Your task to perform on an android device: check google app version Image 0: 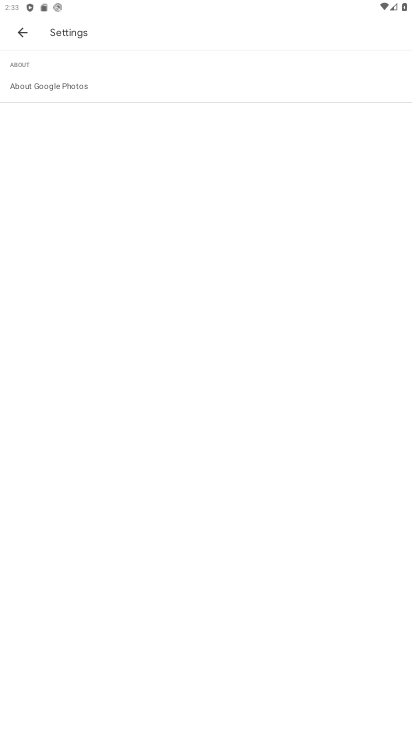
Step 0: press home button
Your task to perform on an android device: check google app version Image 1: 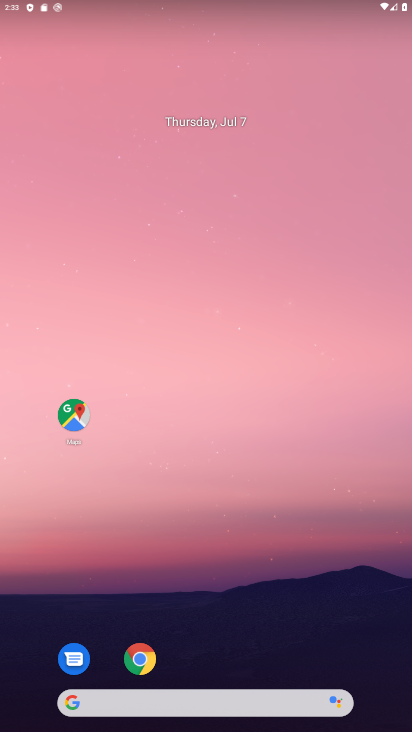
Step 1: click (138, 661)
Your task to perform on an android device: check google app version Image 2: 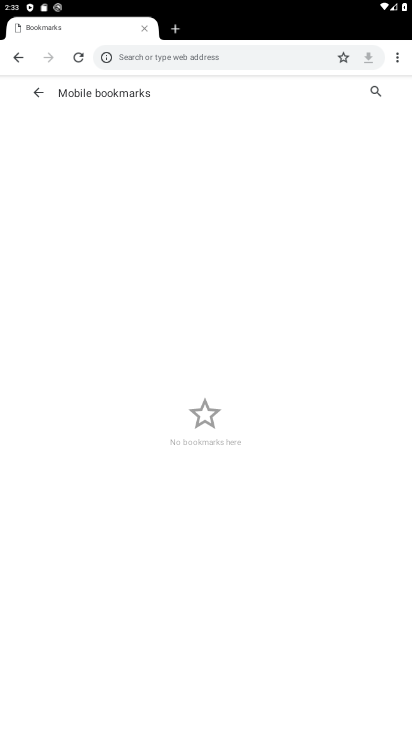
Step 2: click (399, 60)
Your task to perform on an android device: check google app version Image 3: 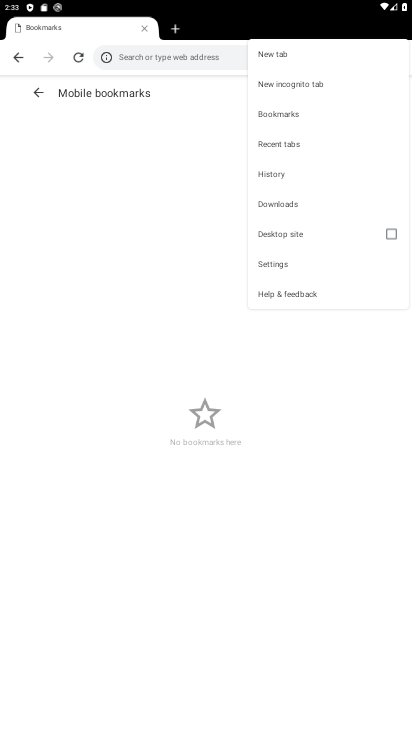
Step 3: click (313, 290)
Your task to perform on an android device: check google app version Image 4: 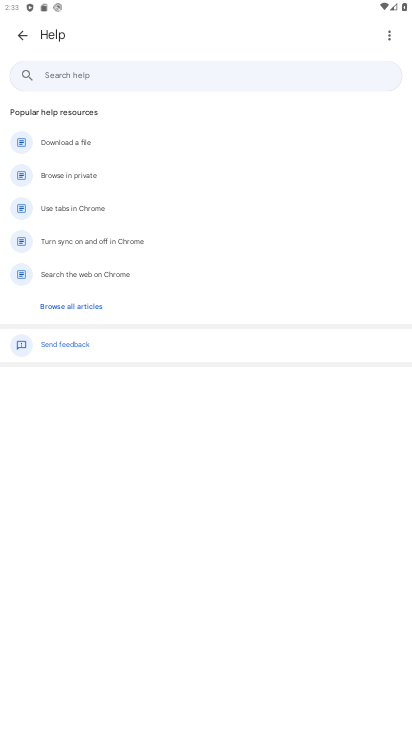
Step 4: click (387, 39)
Your task to perform on an android device: check google app version Image 5: 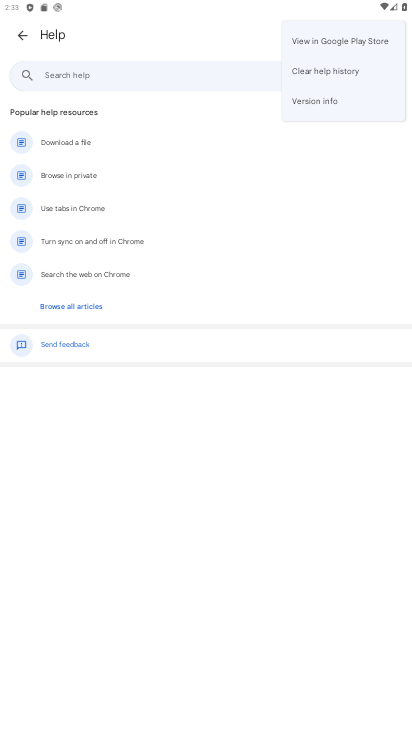
Step 5: click (363, 100)
Your task to perform on an android device: check google app version Image 6: 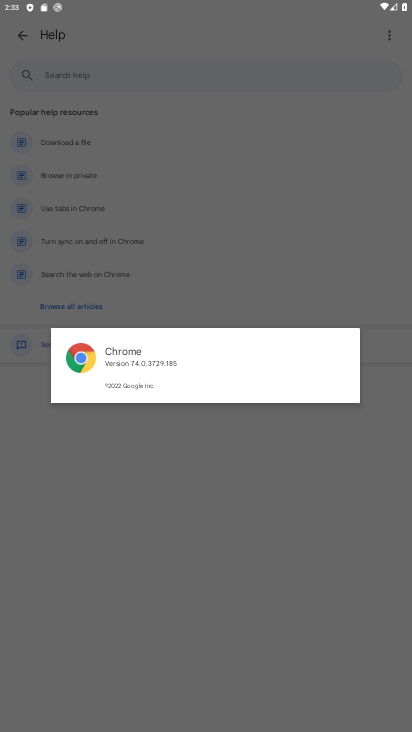
Step 6: task complete